Your task to perform on an android device: see creations saved in the google photos Image 0: 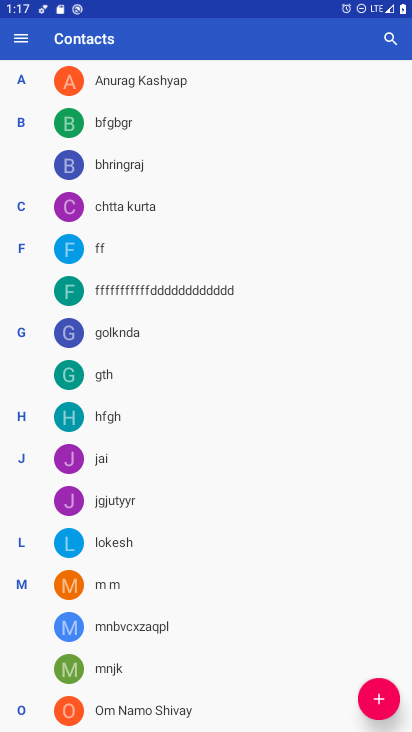
Step 0: press home button
Your task to perform on an android device: see creations saved in the google photos Image 1: 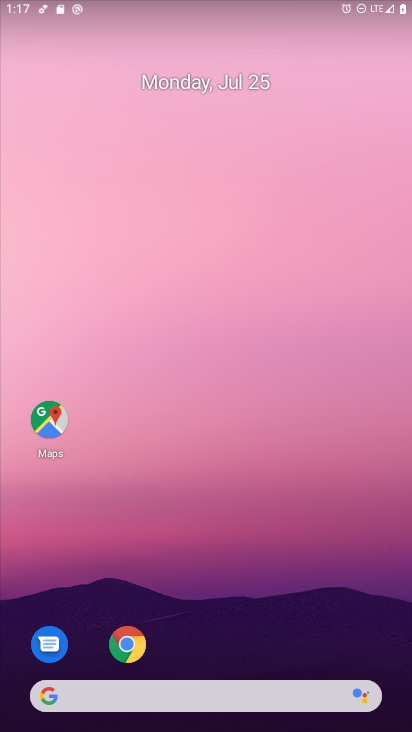
Step 1: drag from (284, 599) to (273, 73)
Your task to perform on an android device: see creations saved in the google photos Image 2: 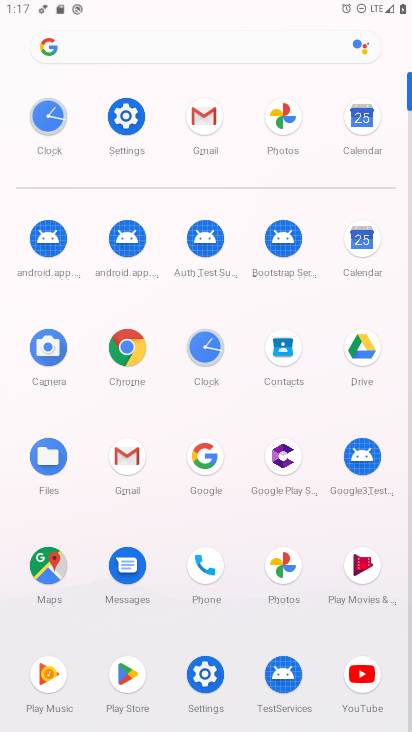
Step 2: click (280, 565)
Your task to perform on an android device: see creations saved in the google photos Image 3: 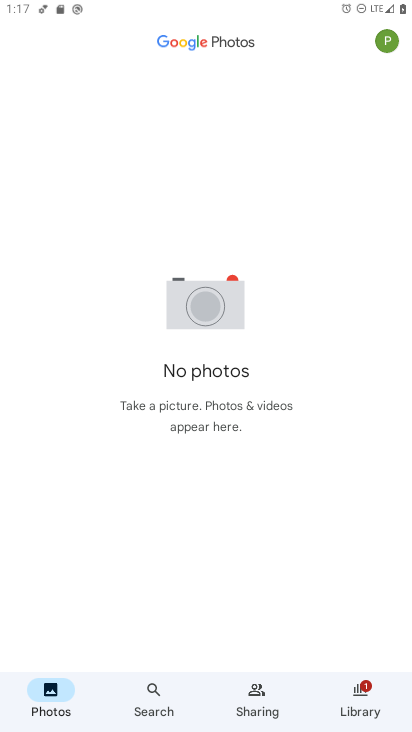
Step 3: click (160, 709)
Your task to perform on an android device: see creations saved in the google photos Image 4: 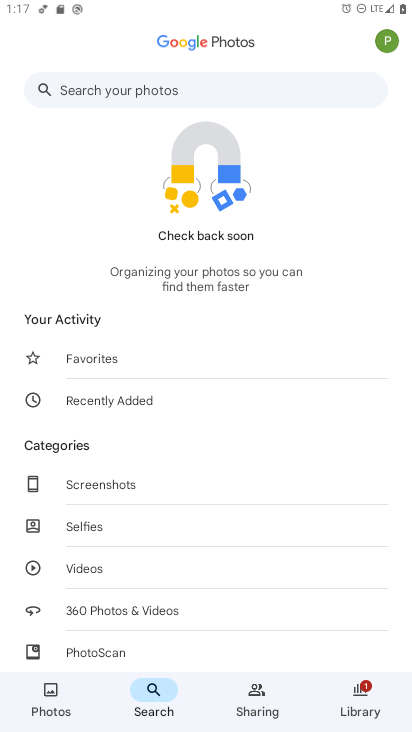
Step 4: drag from (228, 570) to (234, 301)
Your task to perform on an android device: see creations saved in the google photos Image 5: 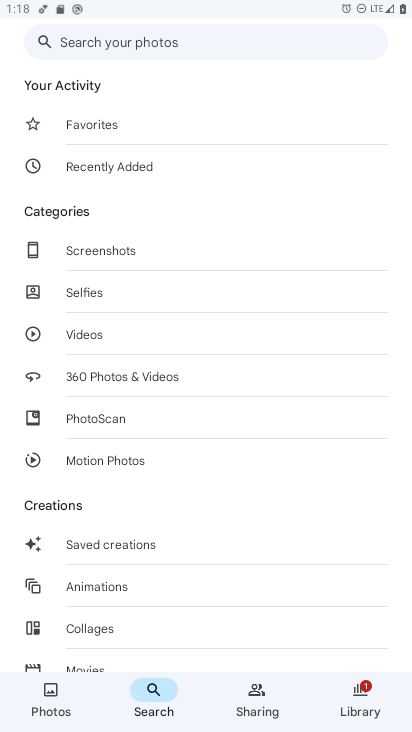
Step 5: drag from (218, 554) to (218, 329)
Your task to perform on an android device: see creations saved in the google photos Image 6: 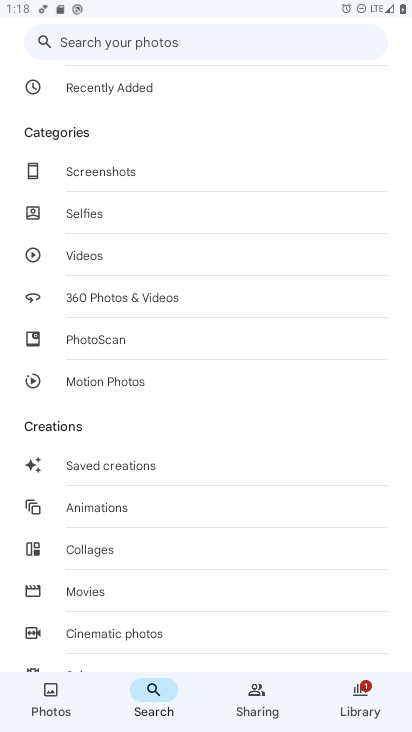
Step 6: click (142, 459)
Your task to perform on an android device: see creations saved in the google photos Image 7: 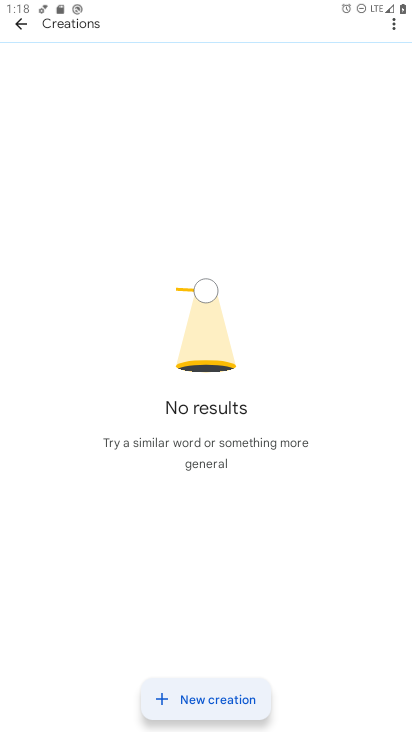
Step 7: task complete